Your task to perform on an android device: Open calendar and show me the second week of next month Image 0: 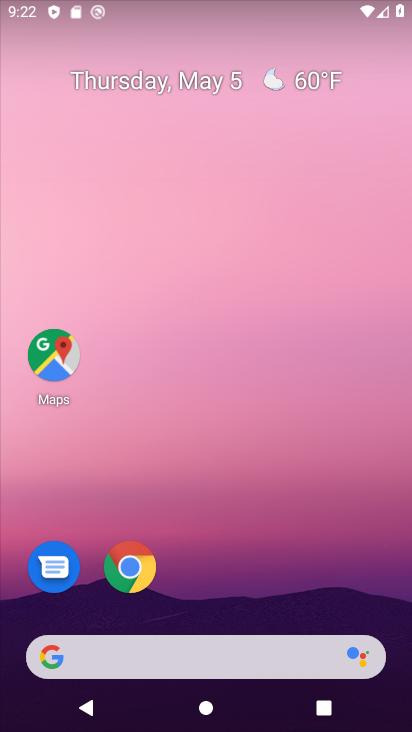
Step 0: drag from (195, 585) to (210, 189)
Your task to perform on an android device: Open calendar and show me the second week of next month Image 1: 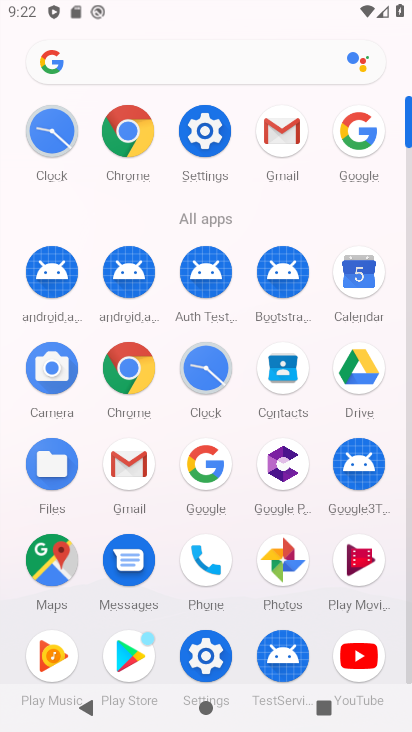
Step 1: click (362, 272)
Your task to perform on an android device: Open calendar and show me the second week of next month Image 2: 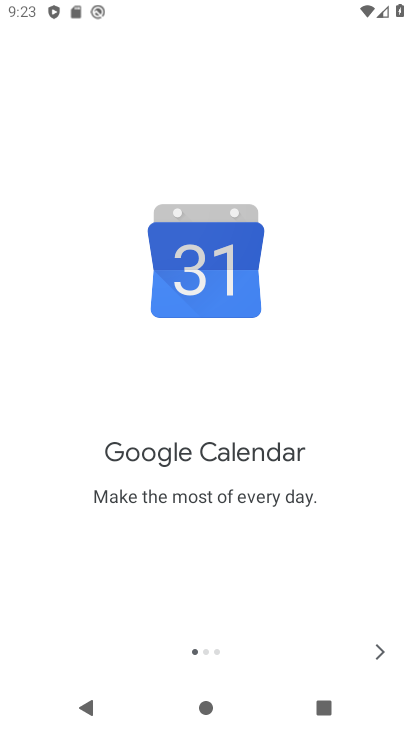
Step 2: click (377, 642)
Your task to perform on an android device: Open calendar and show me the second week of next month Image 3: 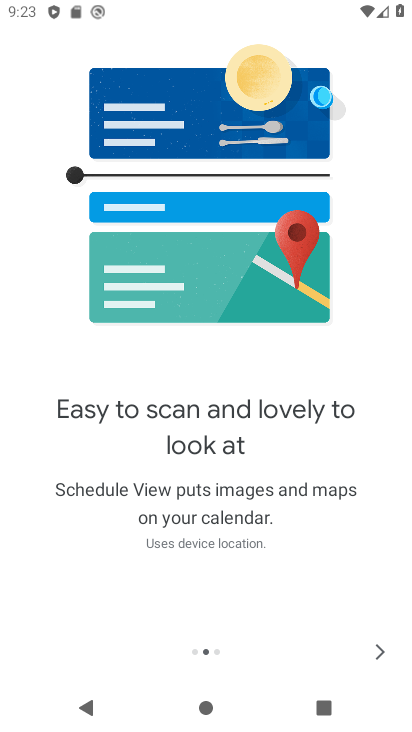
Step 3: click (377, 642)
Your task to perform on an android device: Open calendar and show me the second week of next month Image 4: 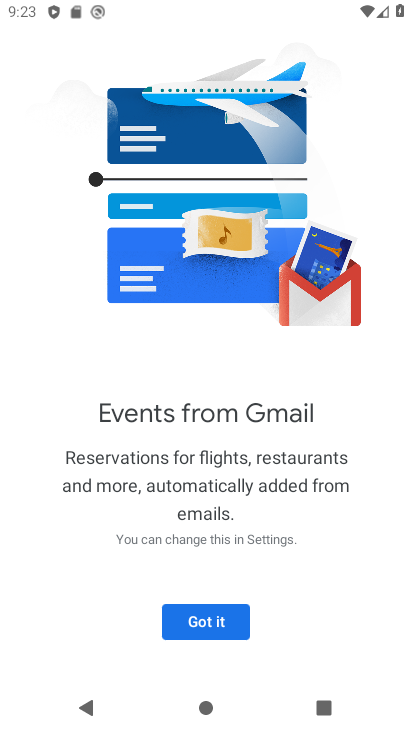
Step 4: click (377, 642)
Your task to perform on an android device: Open calendar and show me the second week of next month Image 5: 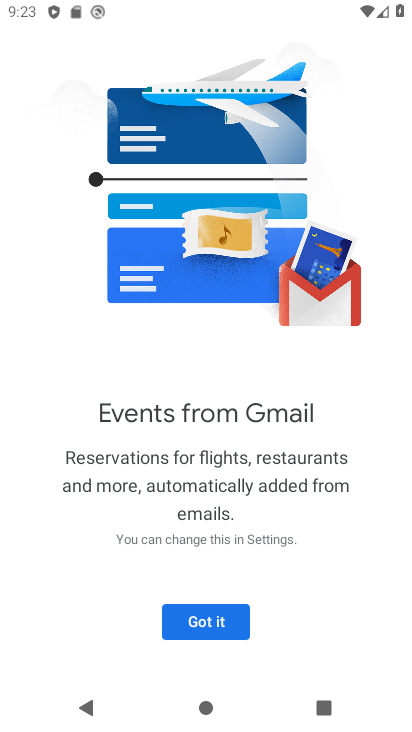
Step 5: click (235, 624)
Your task to perform on an android device: Open calendar and show me the second week of next month Image 6: 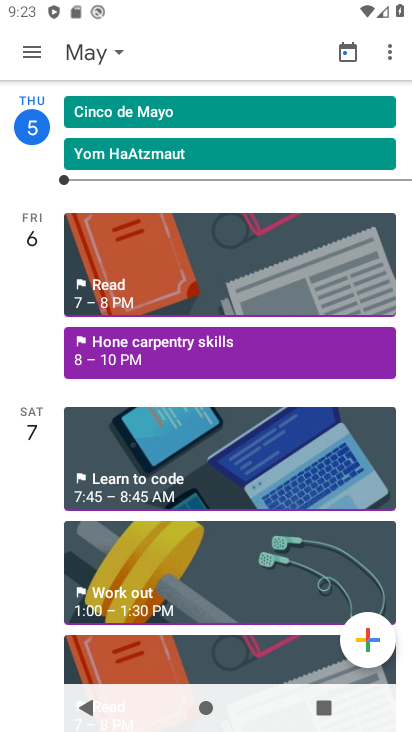
Step 6: click (103, 38)
Your task to perform on an android device: Open calendar and show me the second week of next month Image 7: 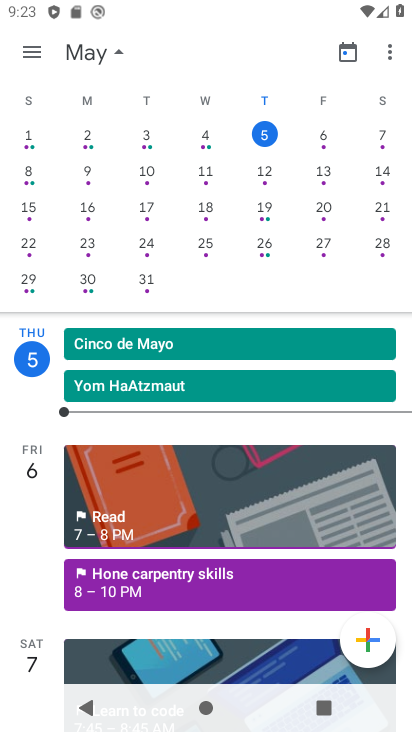
Step 7: drag from (351, 197) to (11, 212)
Your task to perform on an android device: Open calendar and show me the second week of next month Image 8: 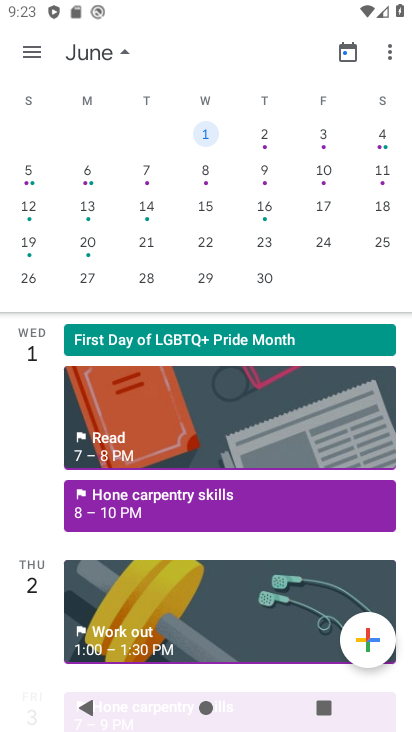
Step 8: click (88, 178)
Your task to perform on an android device: Open calendar and show me the second week of next month Image 9: 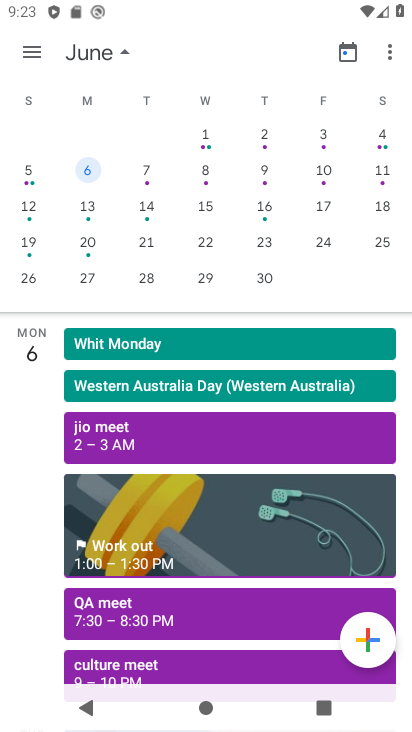
Step 9: click (38, 175)
Your task to perform on an android device: Open calendar and show me the second week of next month Image 10: 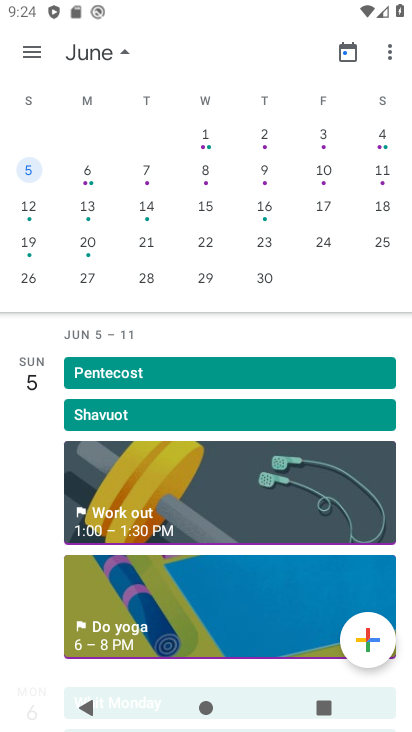
Step 10: task complete